Your task to perform on an android device: turn off translation in the chrome app Image 0: 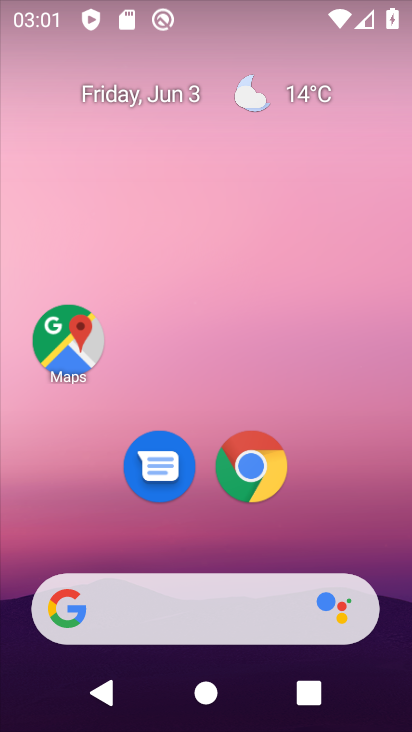
Step 0: press home button
Your task to perform on an android device: turn off translation in the chrome app Image 1: 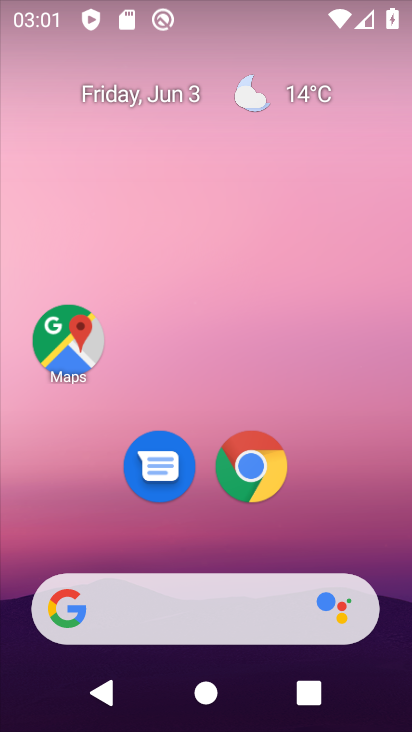
Step 1: click (254, 455)
Your task to perform on an android device: turn off translation in the chrome app Image 2: 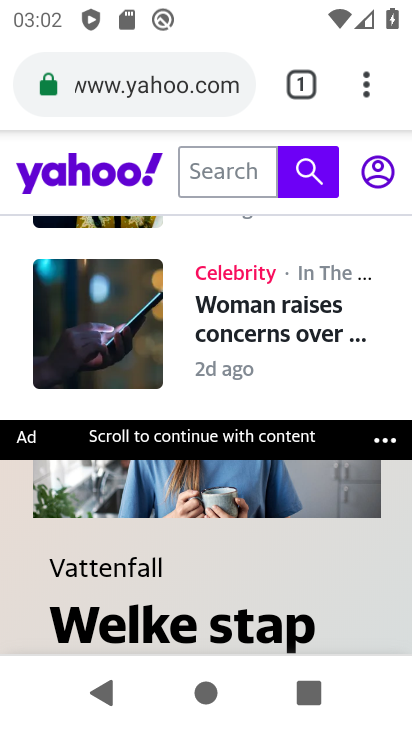
Step 2: click (300, 87)
Your task to perform on an android device: turn off translation in the chrome app Image 3: 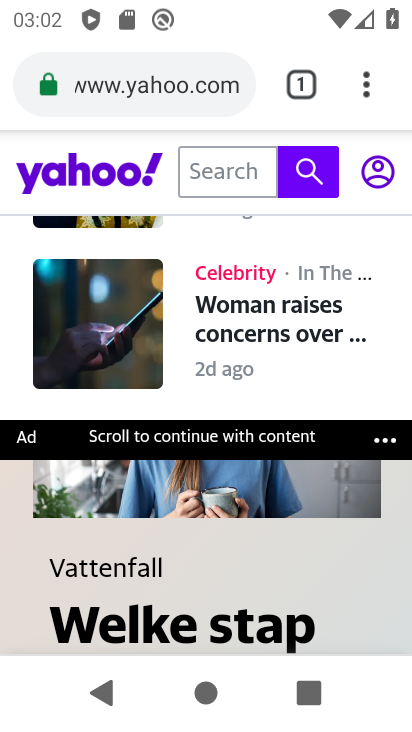
Step 3: click (304, 81)
Your task to perform on an android device: turn off translation in the chrome app Image 4: 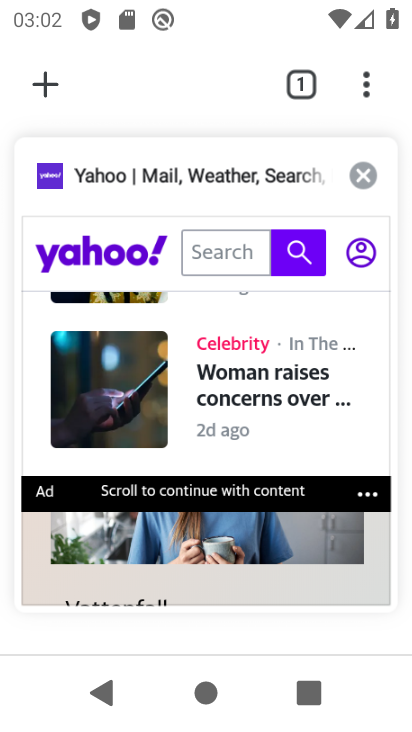
Step 4: click (363, 170)
Your task to perform on an android device: turn off translation in the chrome app Image 5: 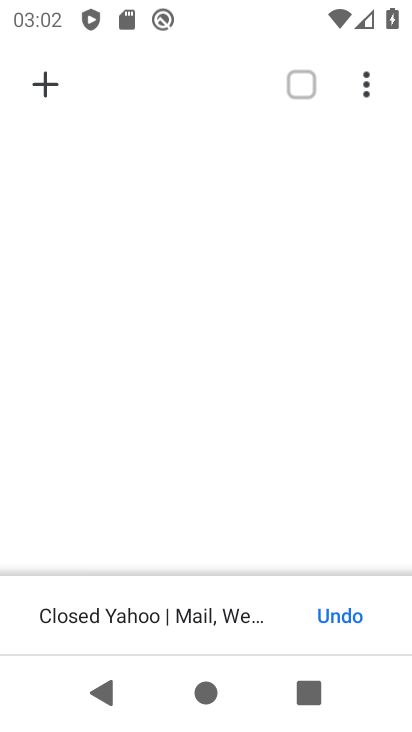
Step 5: click (49, 91)
Your task to perform on an android device: turn off translation in the chrome app Image 6: 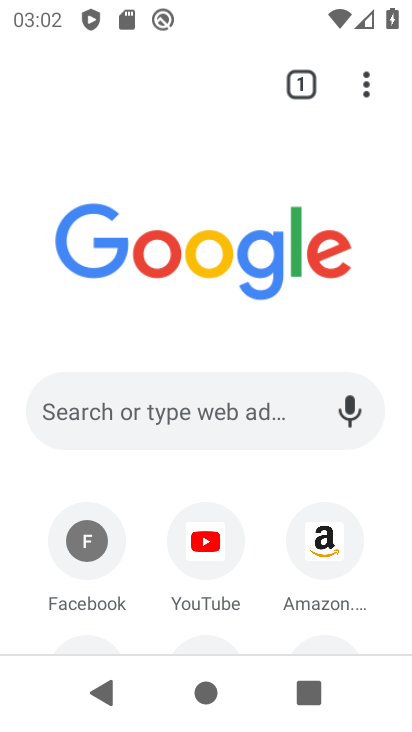
Step 6: click (373, 68)
Your task to perform on an android device: turn off translation in the chrome app Image 7: 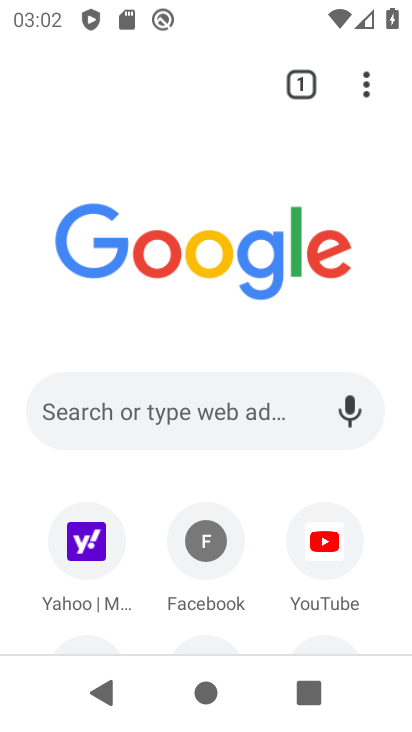
Step 7: click (364, 85)
Your task to perform on an android device: turn off translation in the chrome app Image 8: 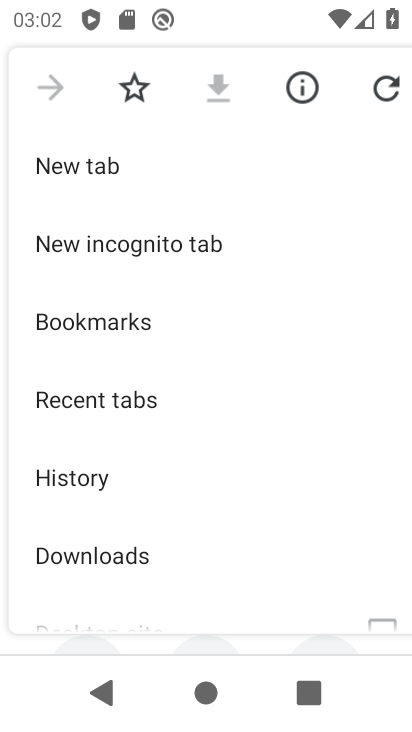
Step 8: click (186, 115)
Your task to perform on an android device: turn off translation in the chrome app Image 9: 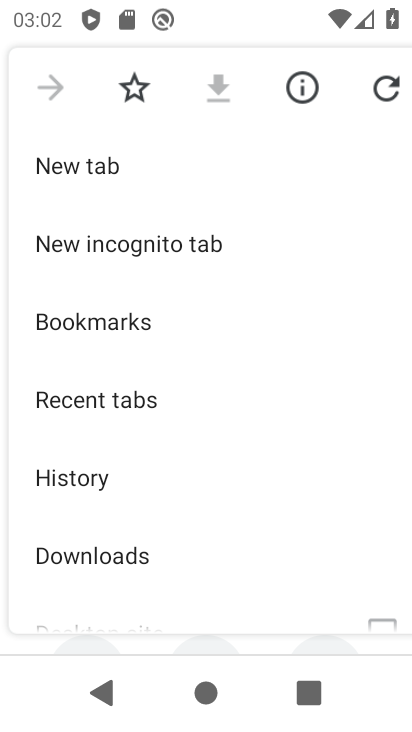
Step 9: drag from (114, 508) to (129, 138)
Your task to perform on an android device: turn off translation in the chrome app Image 10: 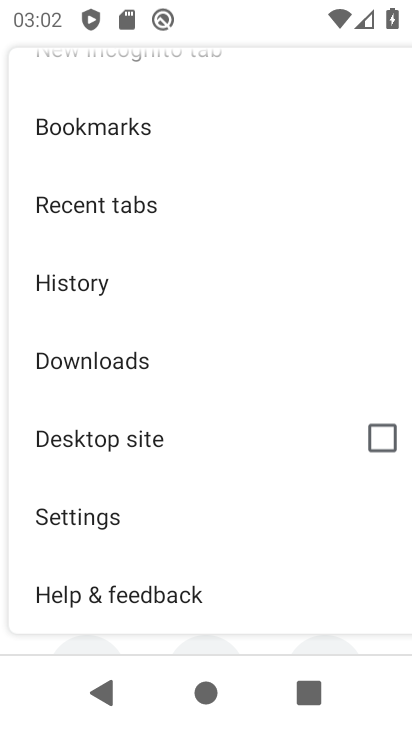
Step 10: click (136, 514)
Your task to perform on an android device: turn off translation in the chrome app Image 11: 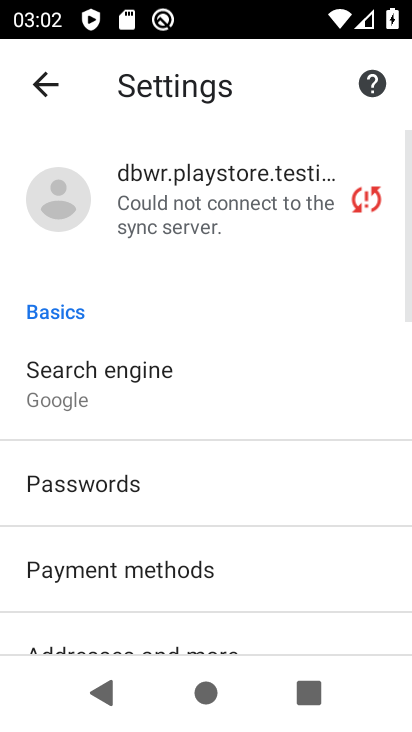
Step 11: drag from (226, 613) to (235, 158)
Your task to perform on an android device: turn off translation in the chrome app Image 12: 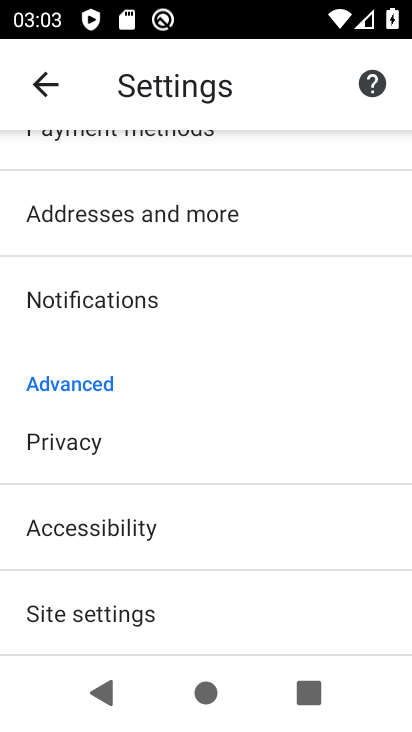
Step 12: drag from (168, 617) to (221, 226)
Your task to perform on an android device: turn off translation in the chrome app Image 13: 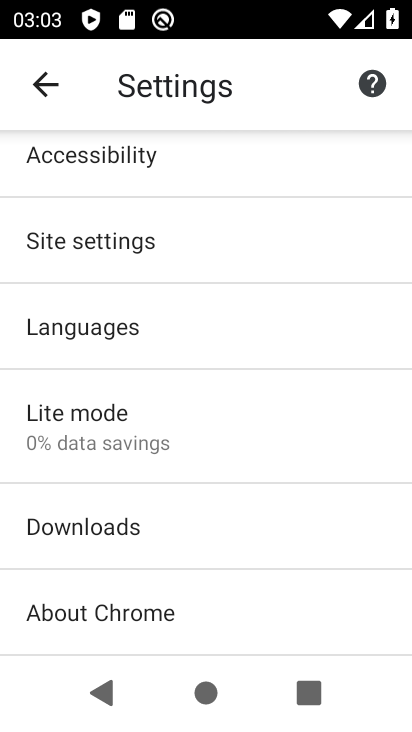
Step 13: click (154, 323)
Your task to perform on an android device: turn off translation in the chrome app Image 14: 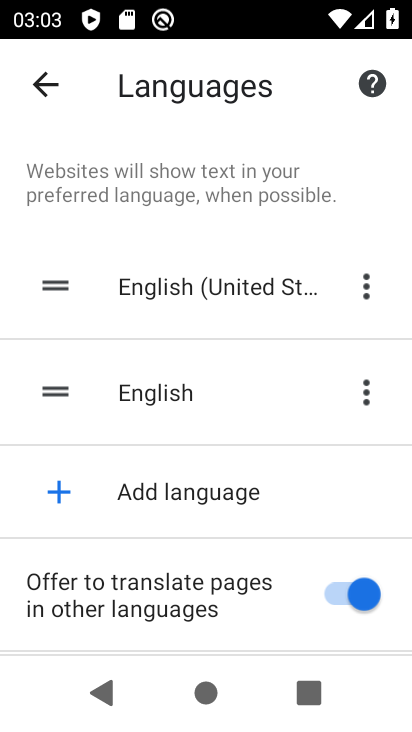
Step 14: click (343, 591)
Your task to perform on an android device: turn off translation in the chrome app Image 15: 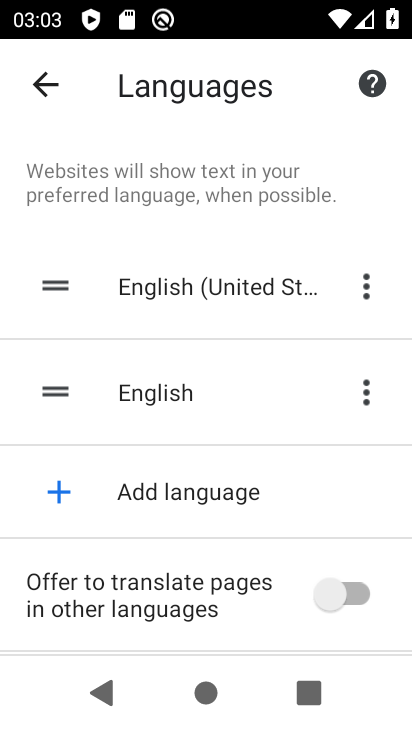
Step 15: task complete